Your task to perform on an android device: What's the news in Laos? Image 0: 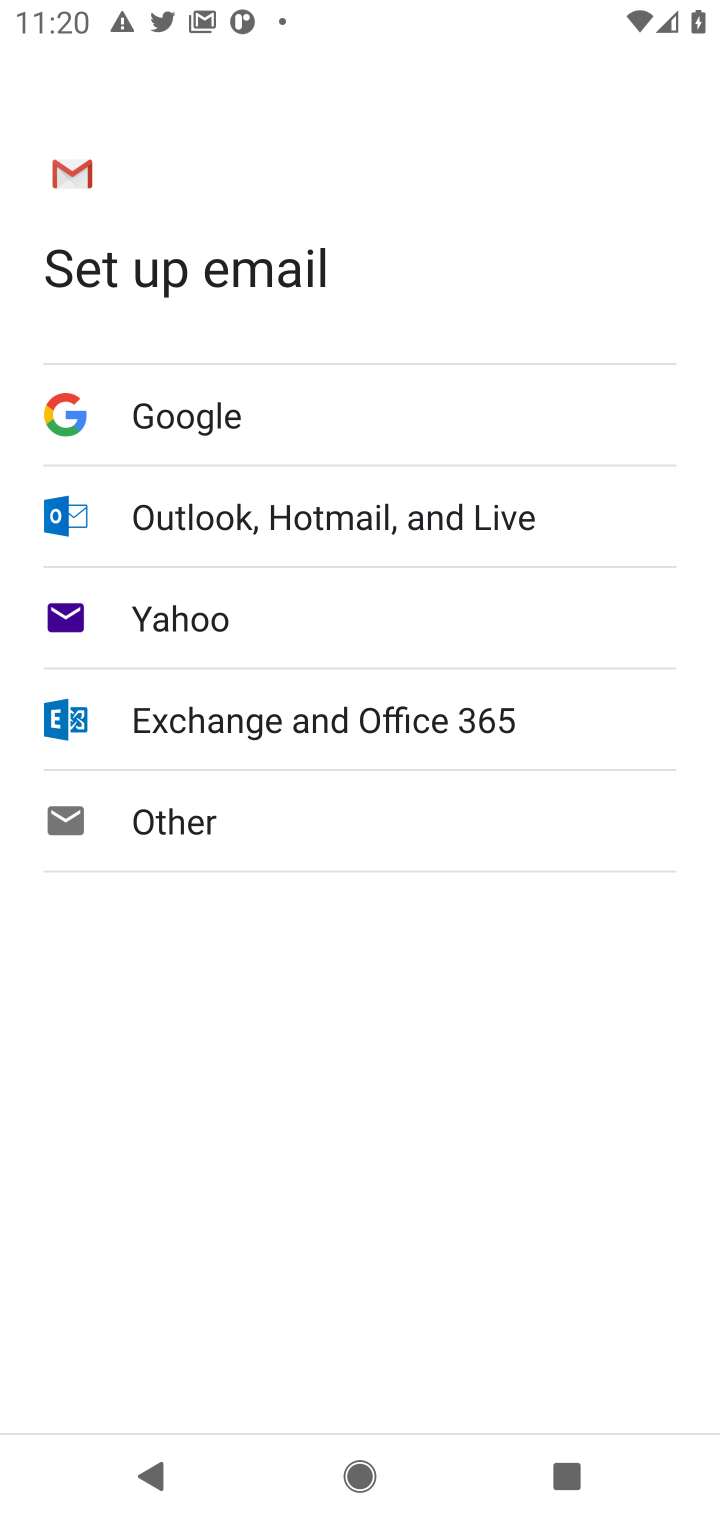
Step 0: press home button
Your task to perform on an android device: What's the news in Laos? Image 1: 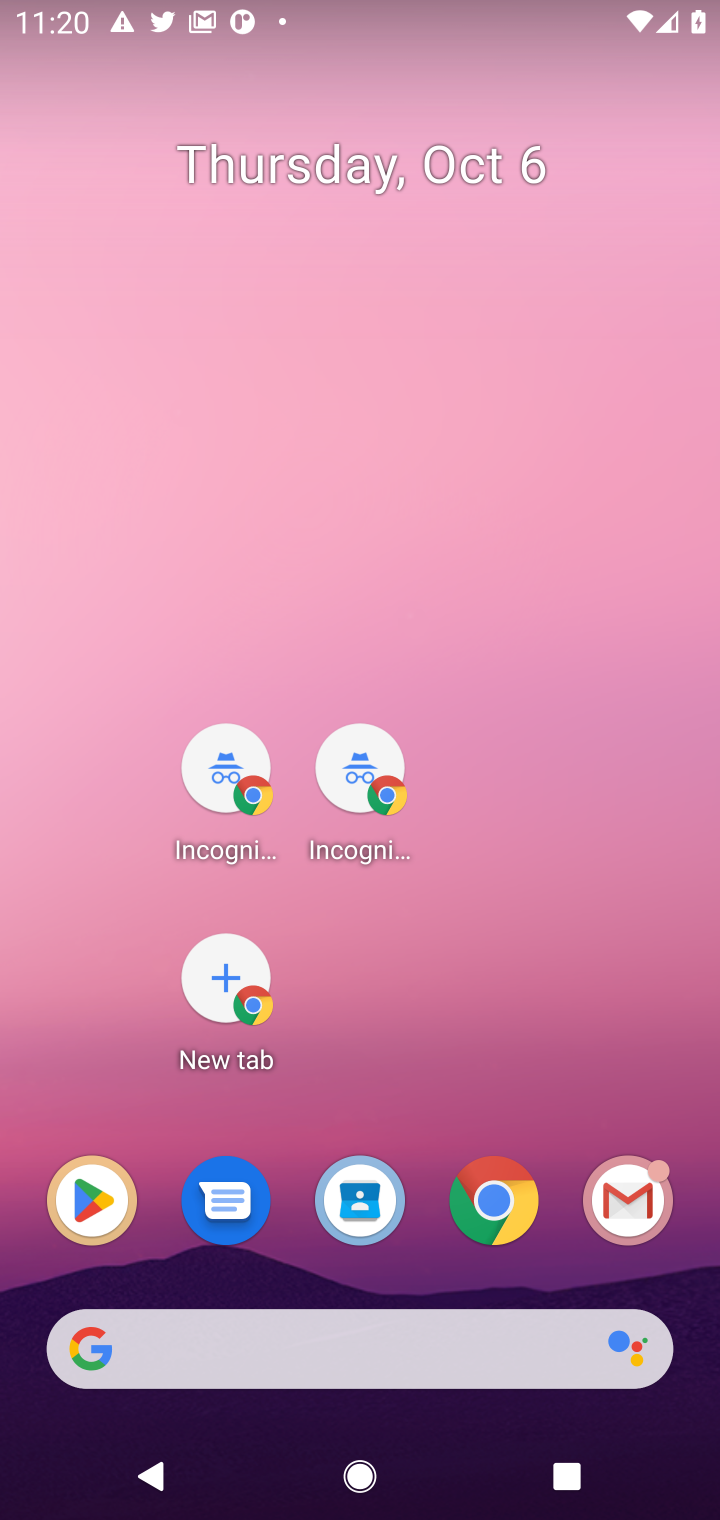
Step 1: press back button
Your task to perform on an android device: What's the news in Laos? Image 2: 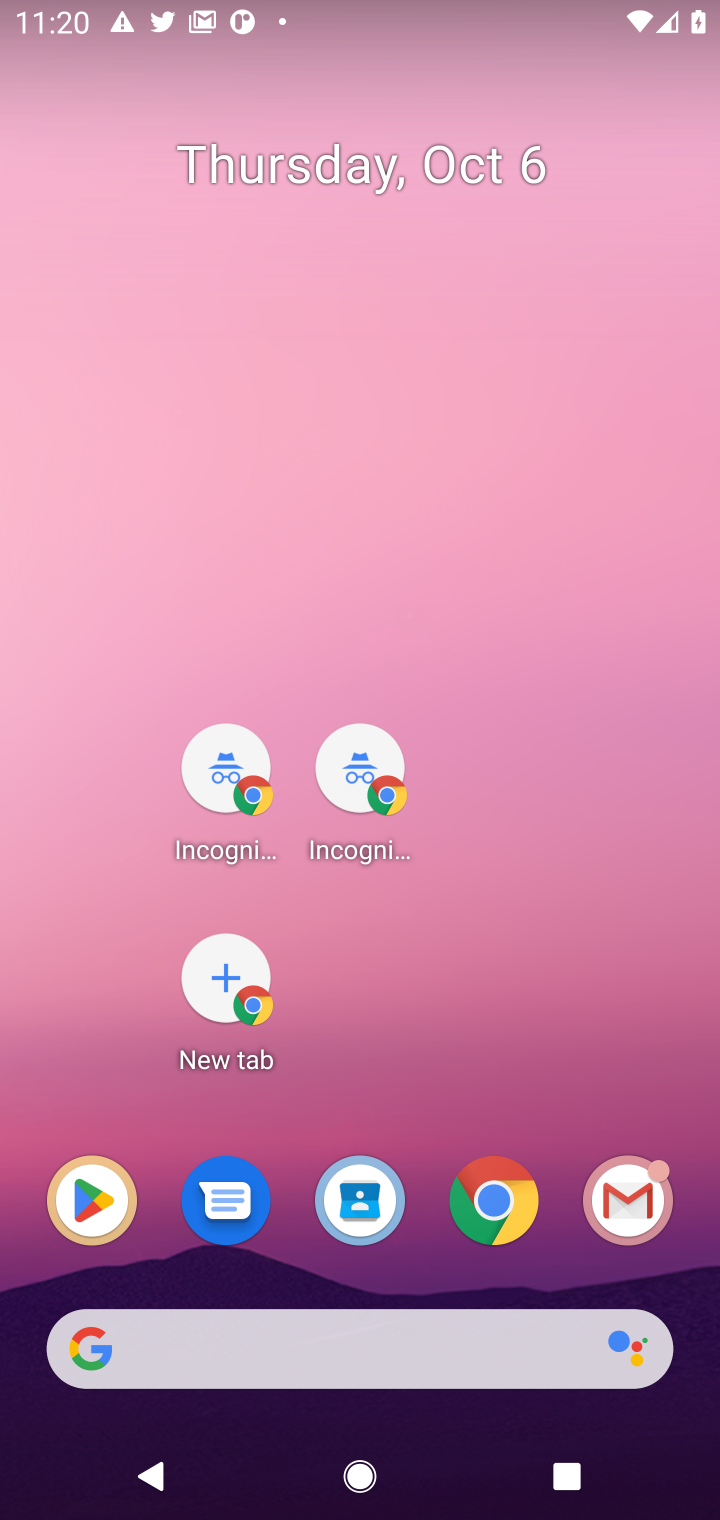
Step 2: click (495, 1214)
Your task to perform on an android device: What's the news in Laos? Image 3: 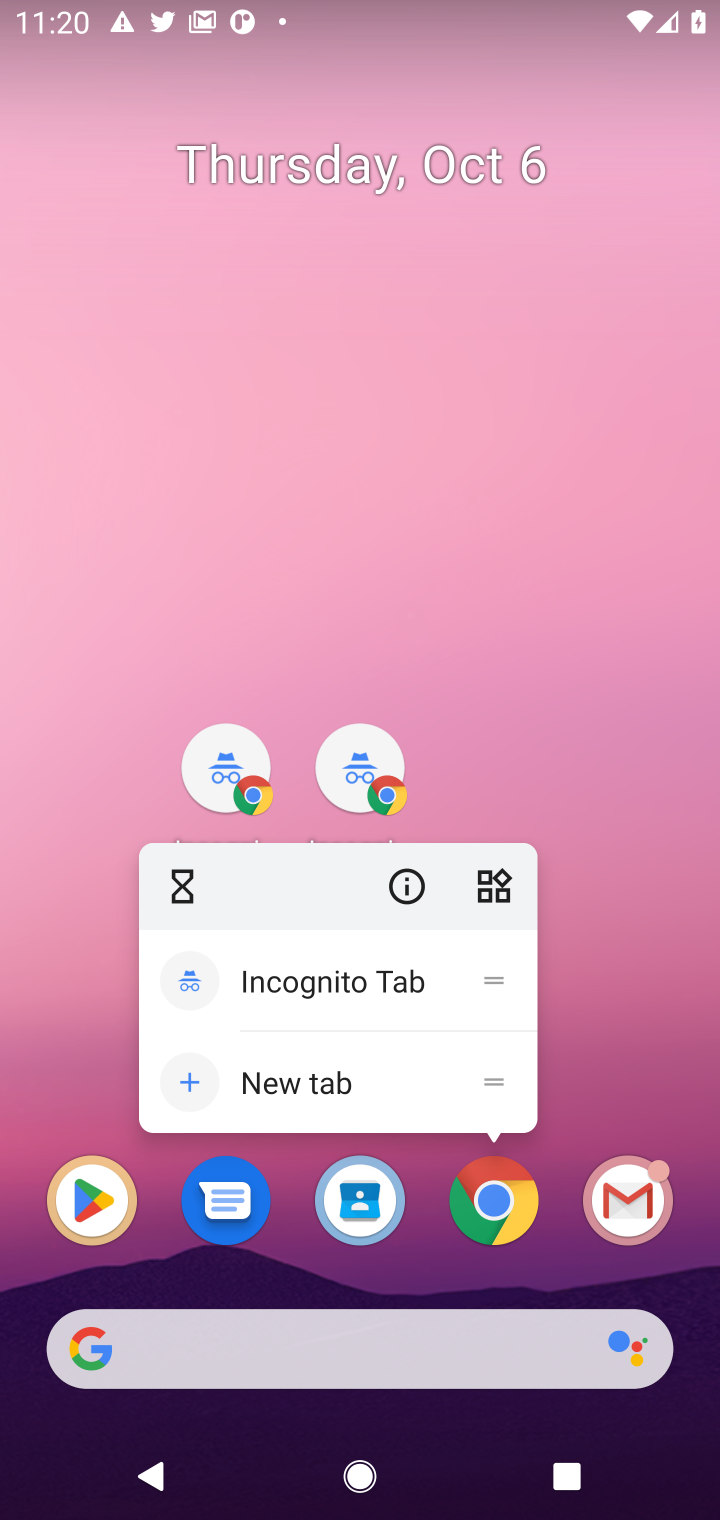
Step 3: click (492, 1212)
Your task to perform on an android device: What's the news in Laos? Image 4: 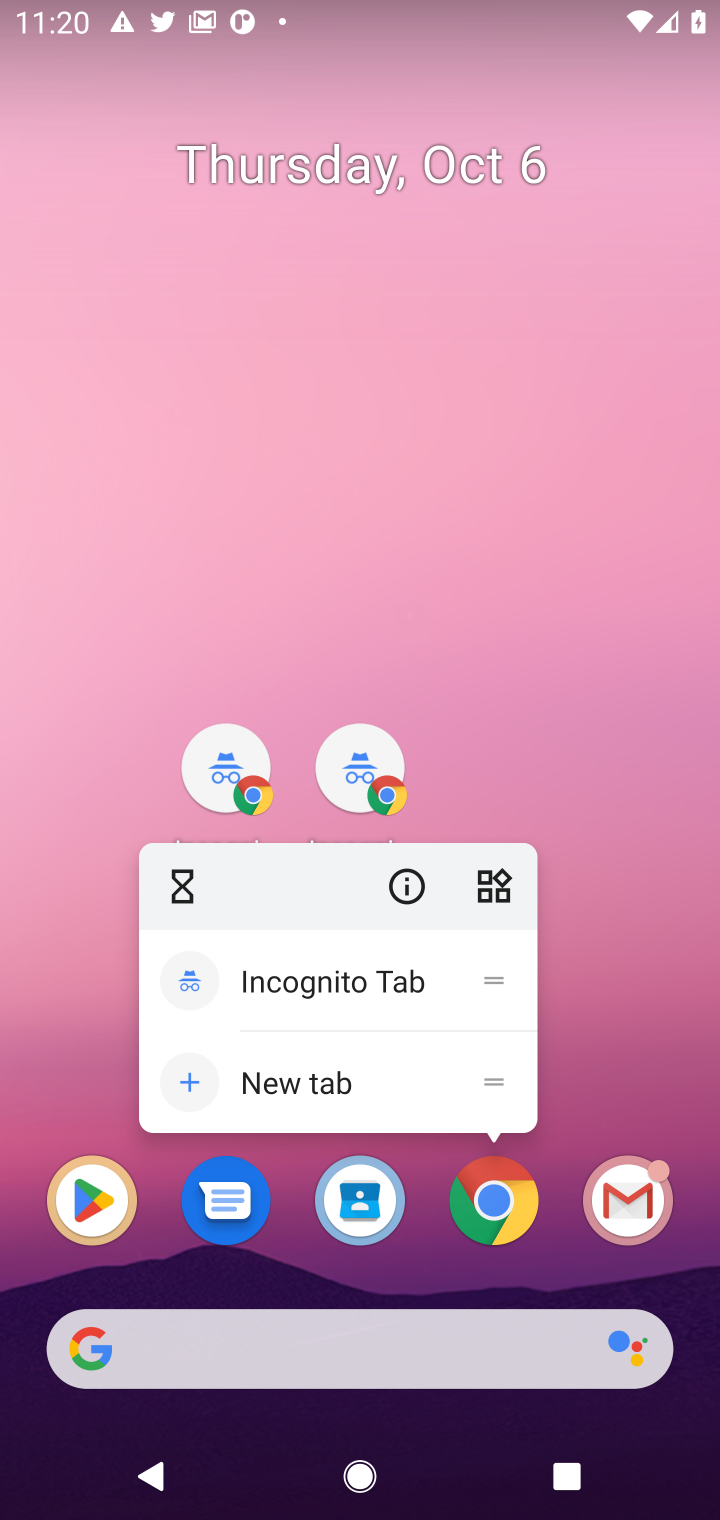
Step 4: press back button
Your task to perform on an android device: What's the news in Laos? Image 5: 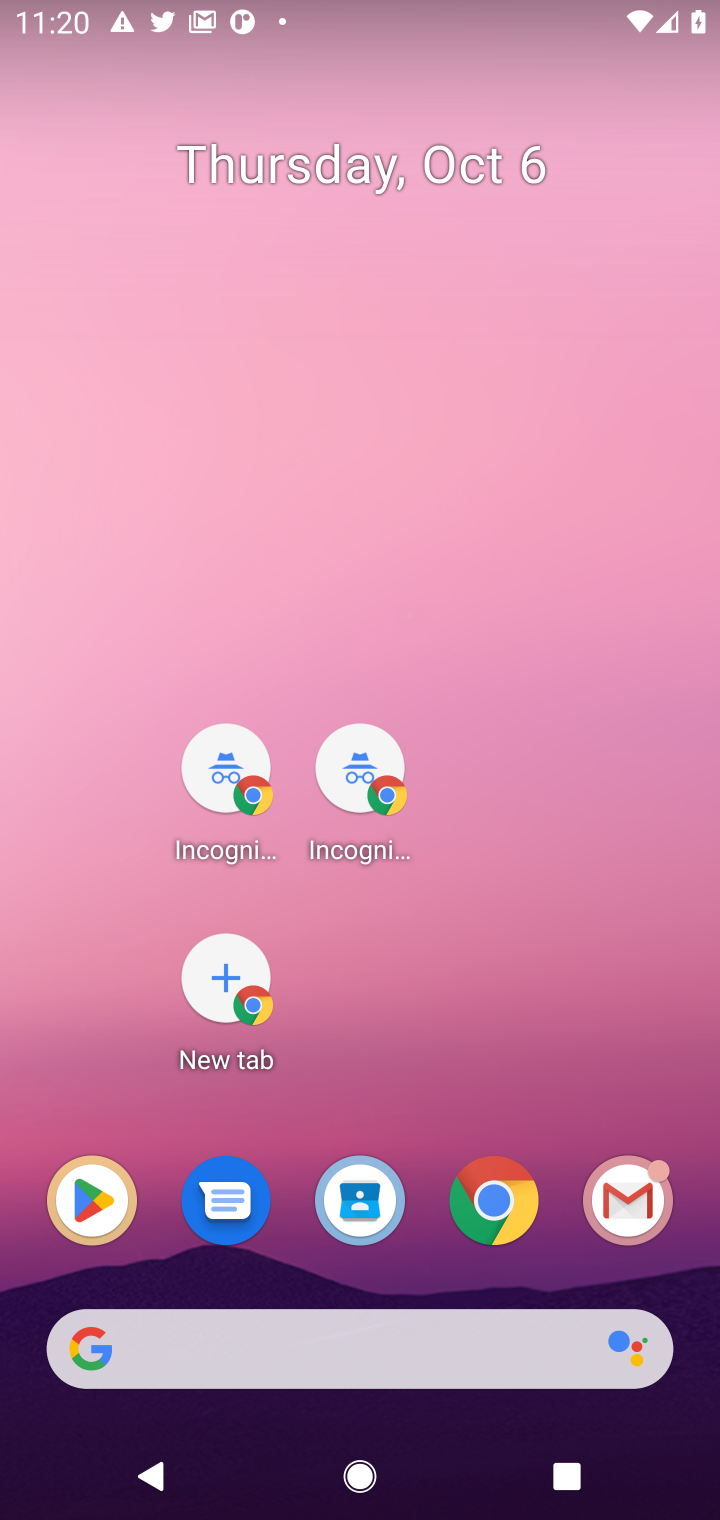
Step 5: press back button
Your task to perform on an android device: What's the news in Laos? Image 6: 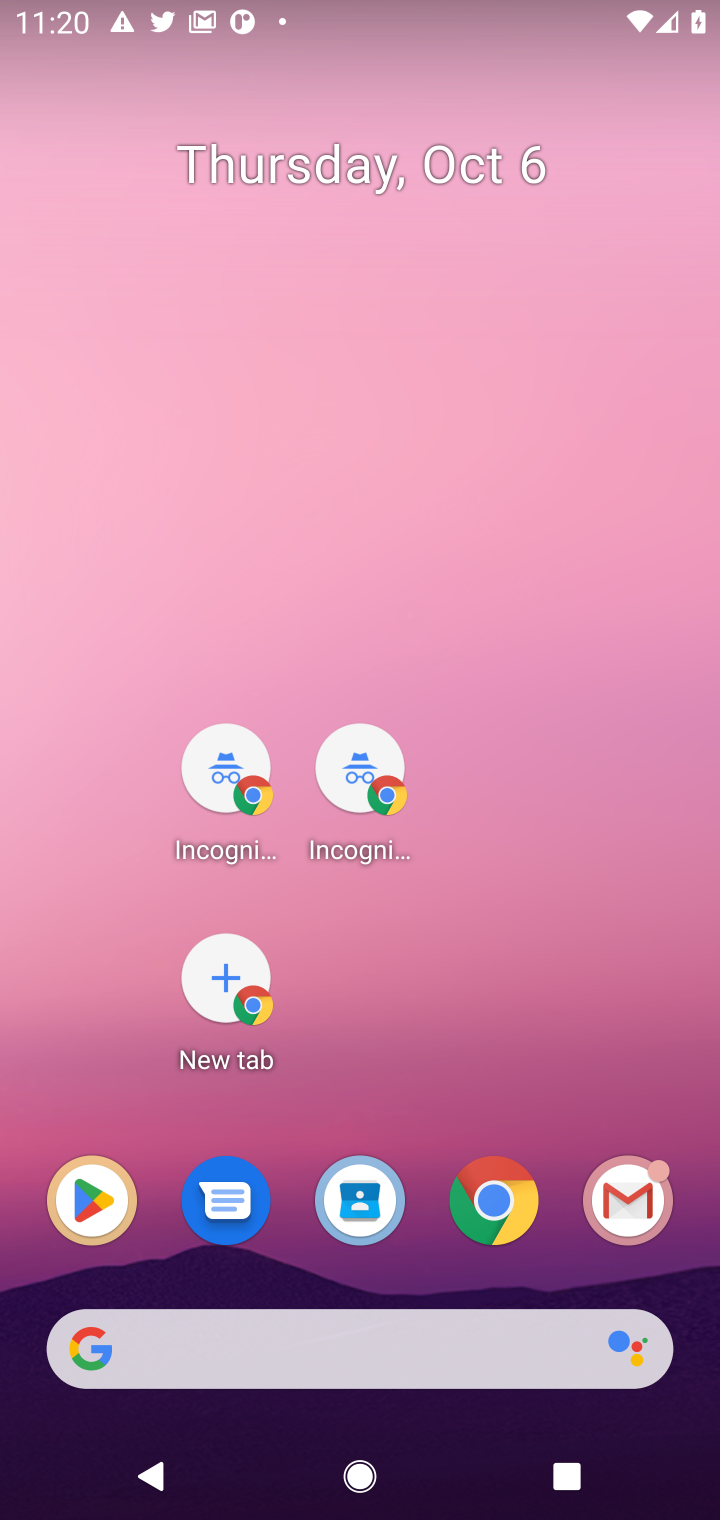
Step 6: press back button
Your task to perform on an android device: What's the news in Laos? Image 7: 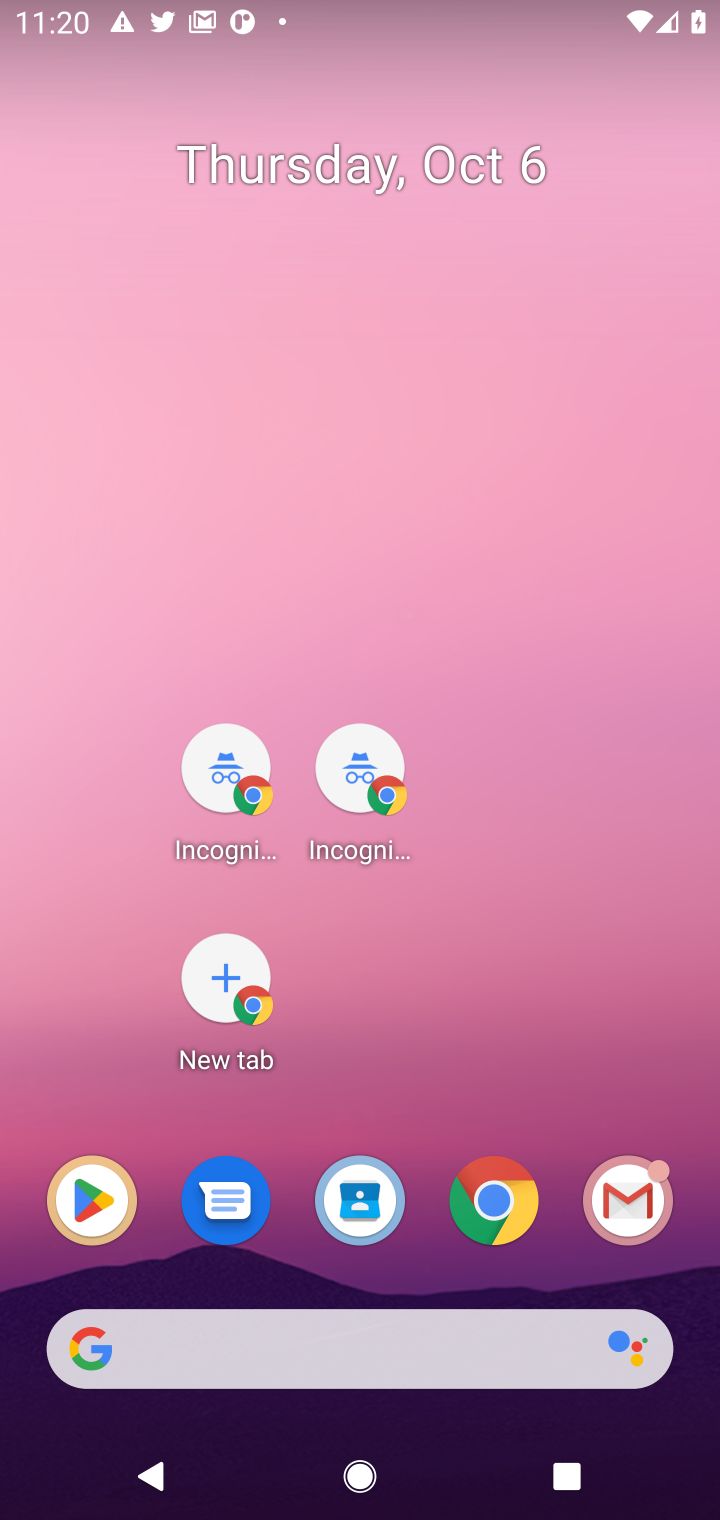
Step 7: click (518, 1204)
Your task to perform on an android device: What's the news in Laos? Image 8: 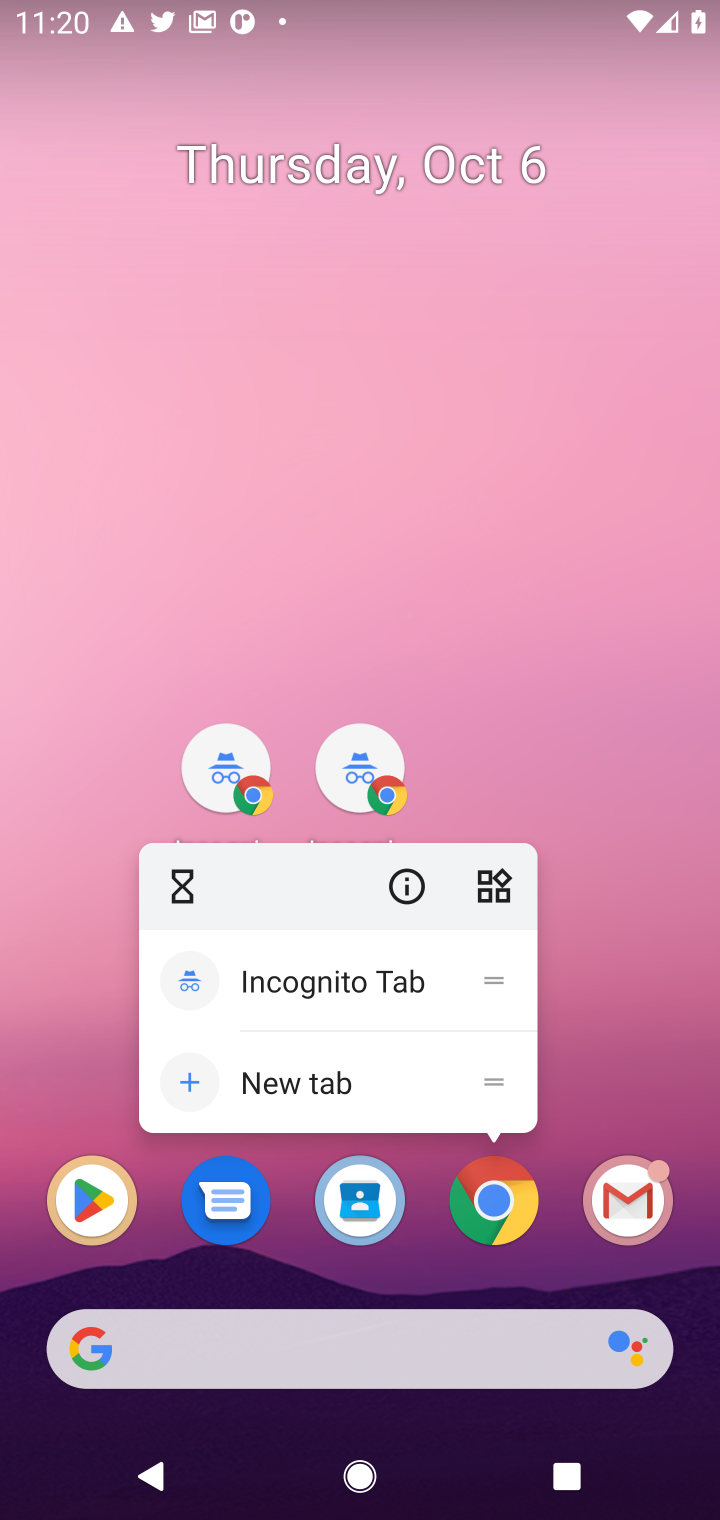
Step 8: click (496, 1218)
Your task to perform on an android device: What's the news in Laos? Image 9: 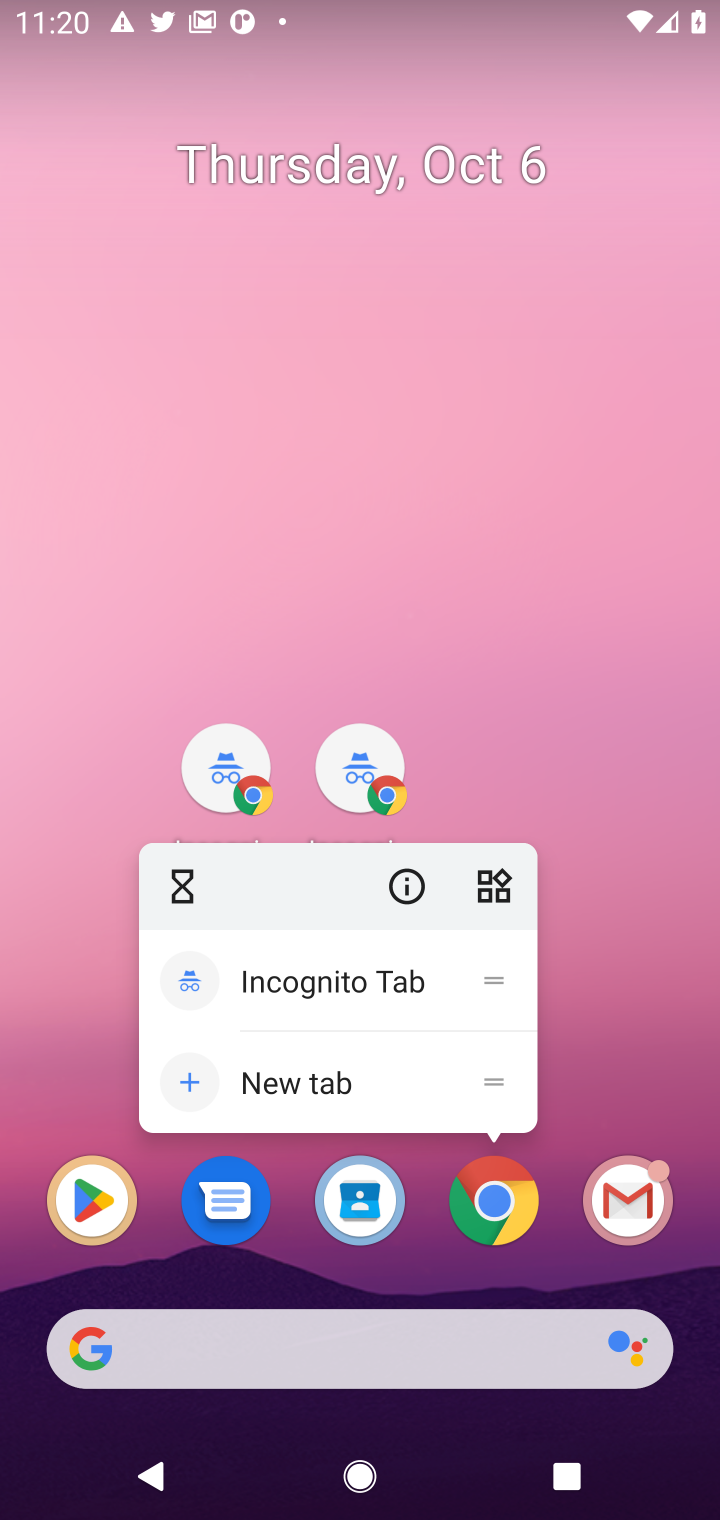
Step 9: click (501, 1225)
Your task to perform on an android device: What's the news in Laos? Image 10: 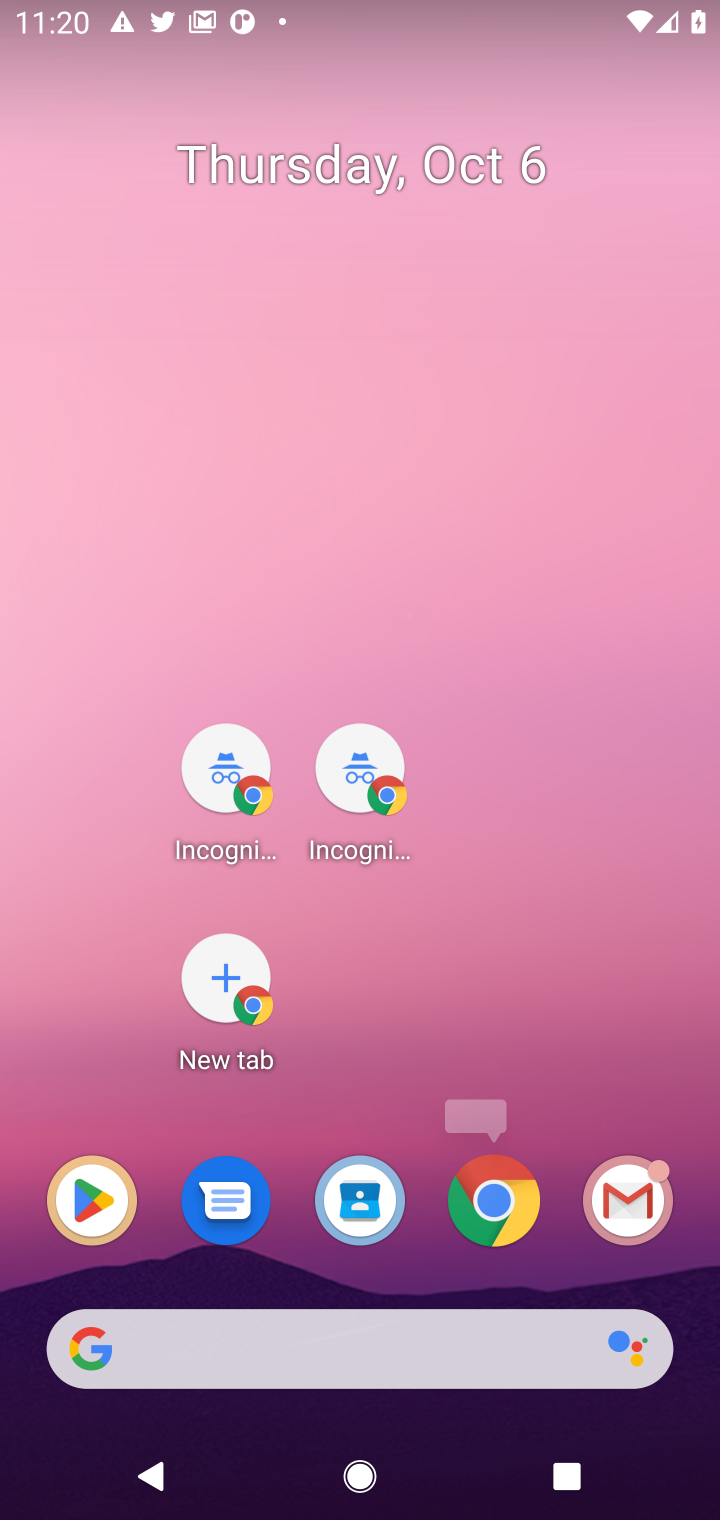
Step 10: click (496, 1204)
Your task to perform on an android device: What's the news in Laos? Image 11: 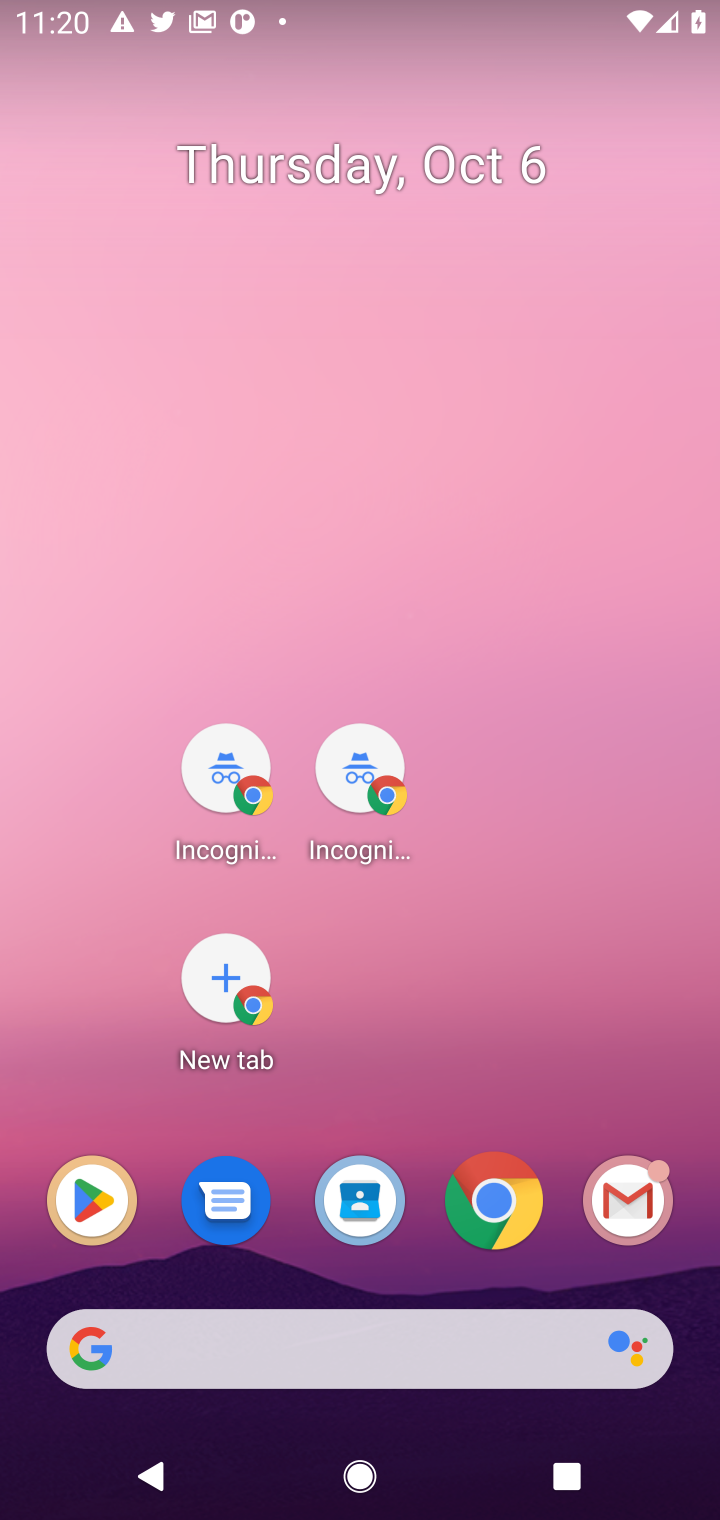
Step 11: click (499, 1202)
Your task to perform on an android device: What's the news in Laos? Image 12: 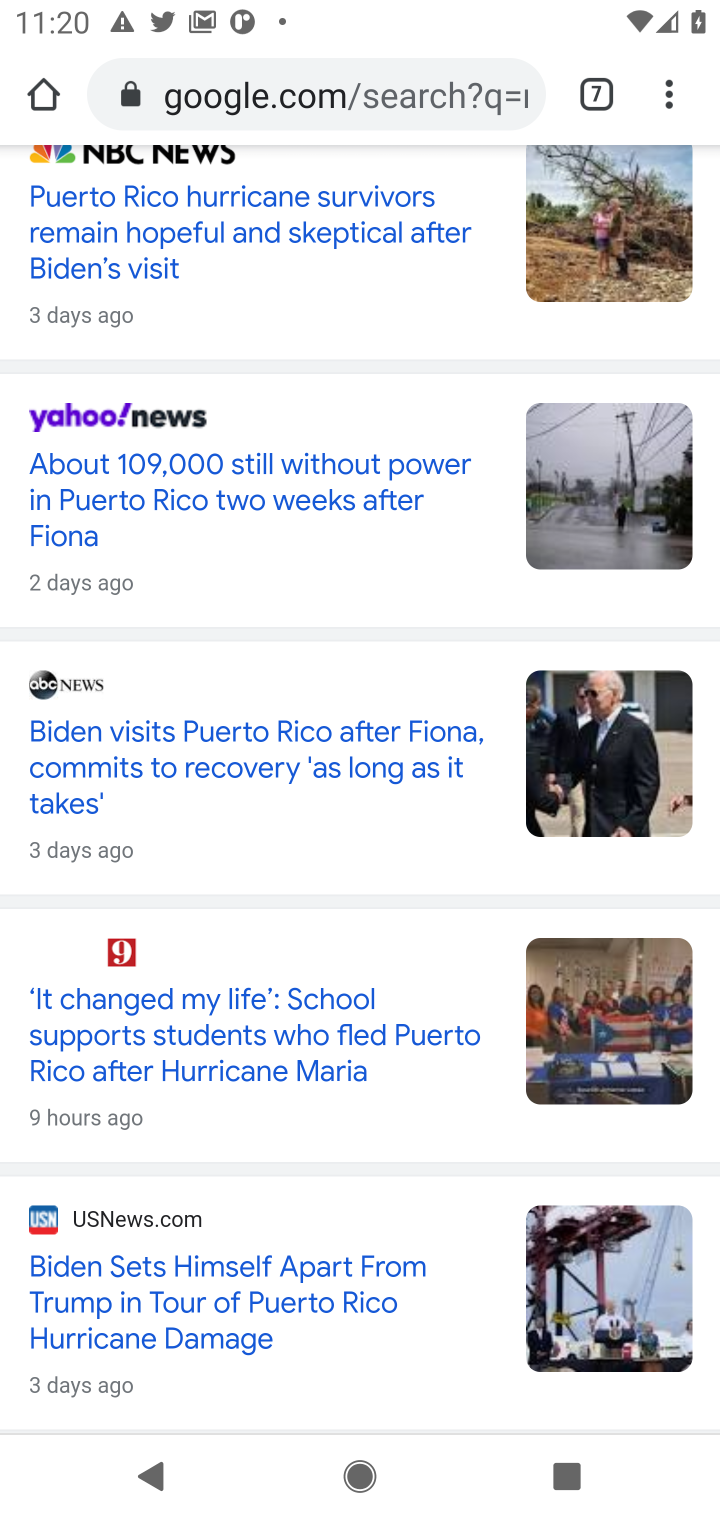
Step 12: click (268, 95)
Your task to perform on an android device: What's the news in Laos? Image 13: 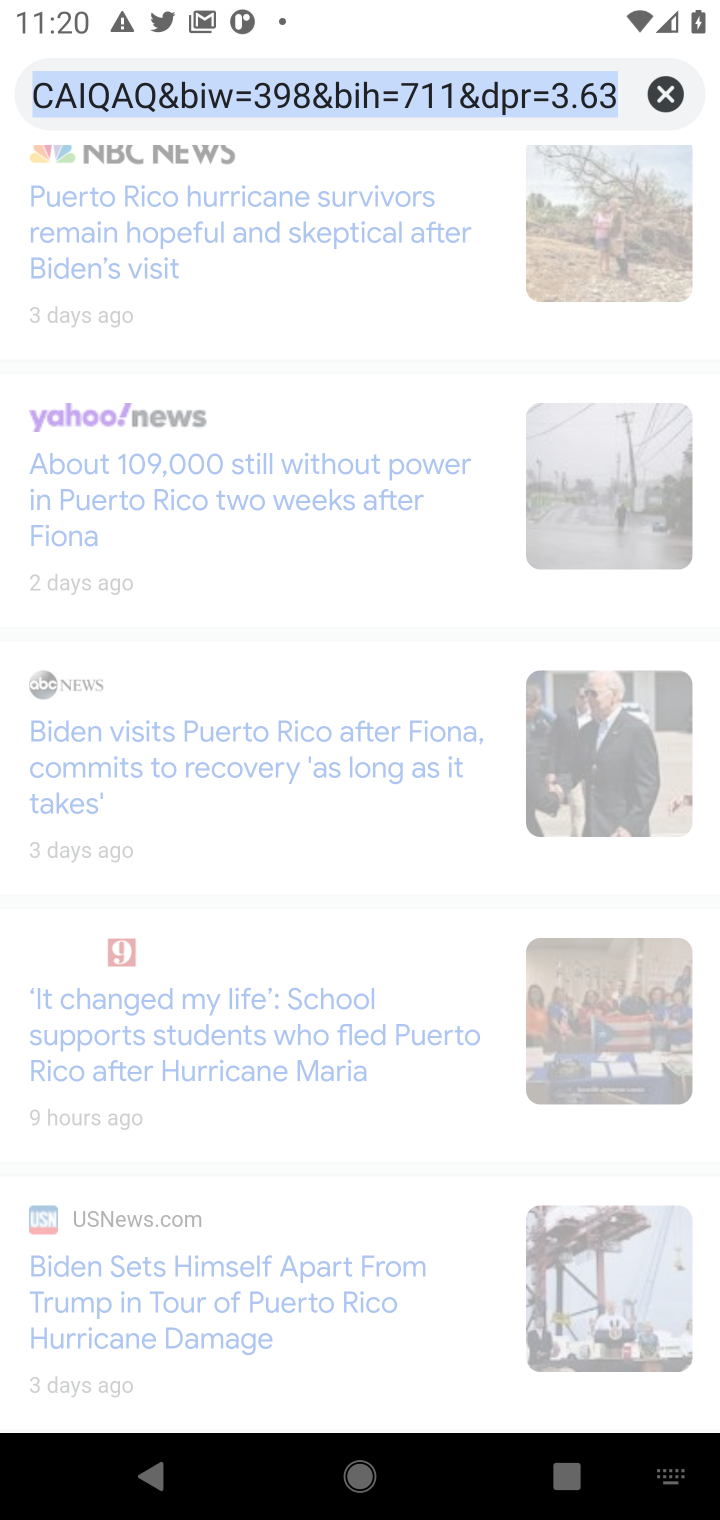
Step 13: click (660, 99)
Your task to perform on an android device: What's the news in Laos? Image 14: 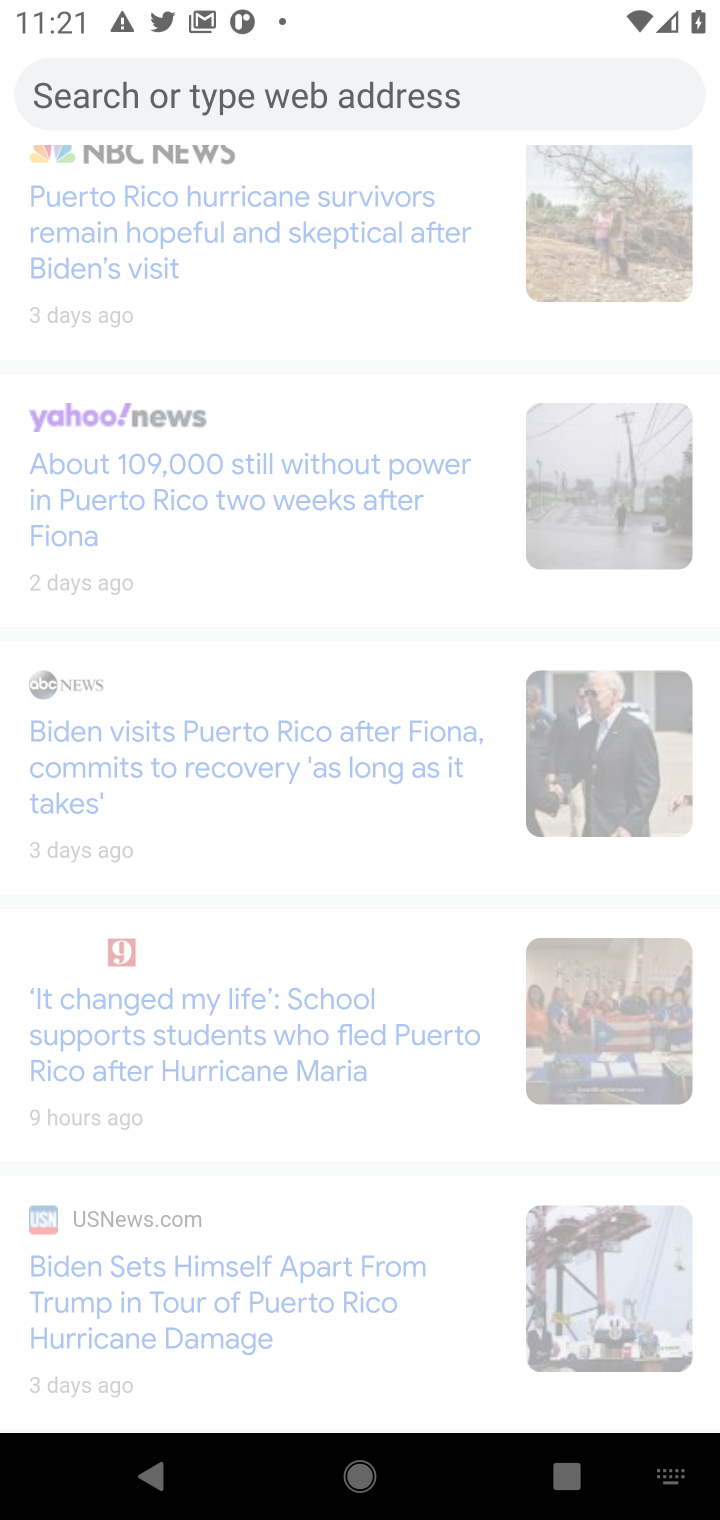
Step 14: type "whats the news in lacos"
Your task to perform on an android device: What's the news in Laos? Image 15: 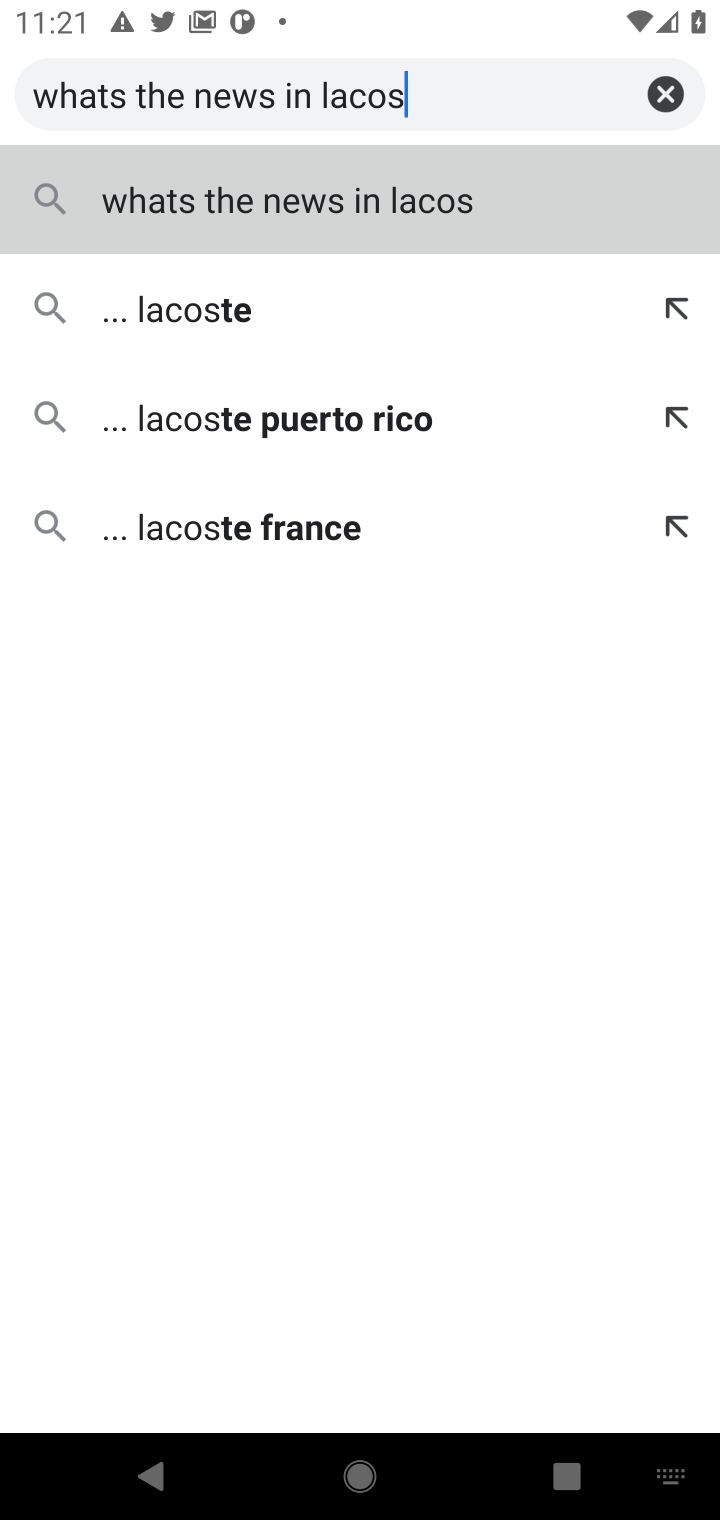
Step 15: click (309, 89)
Your task to perform on an android device: What's the news in Laos? Image 16: 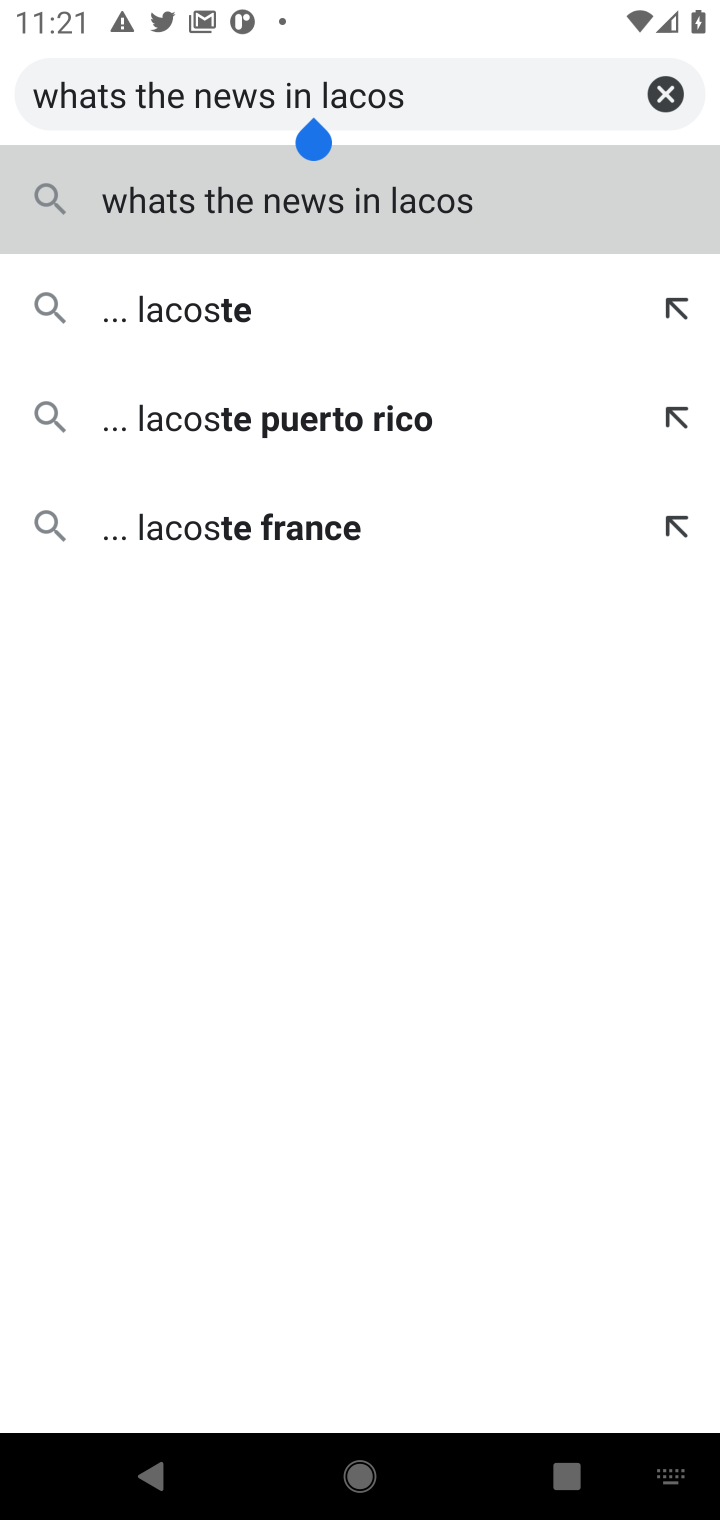
Step 16: click (402, 205)
Your task to perform on an android device: What's the news in Laos? Image 17: 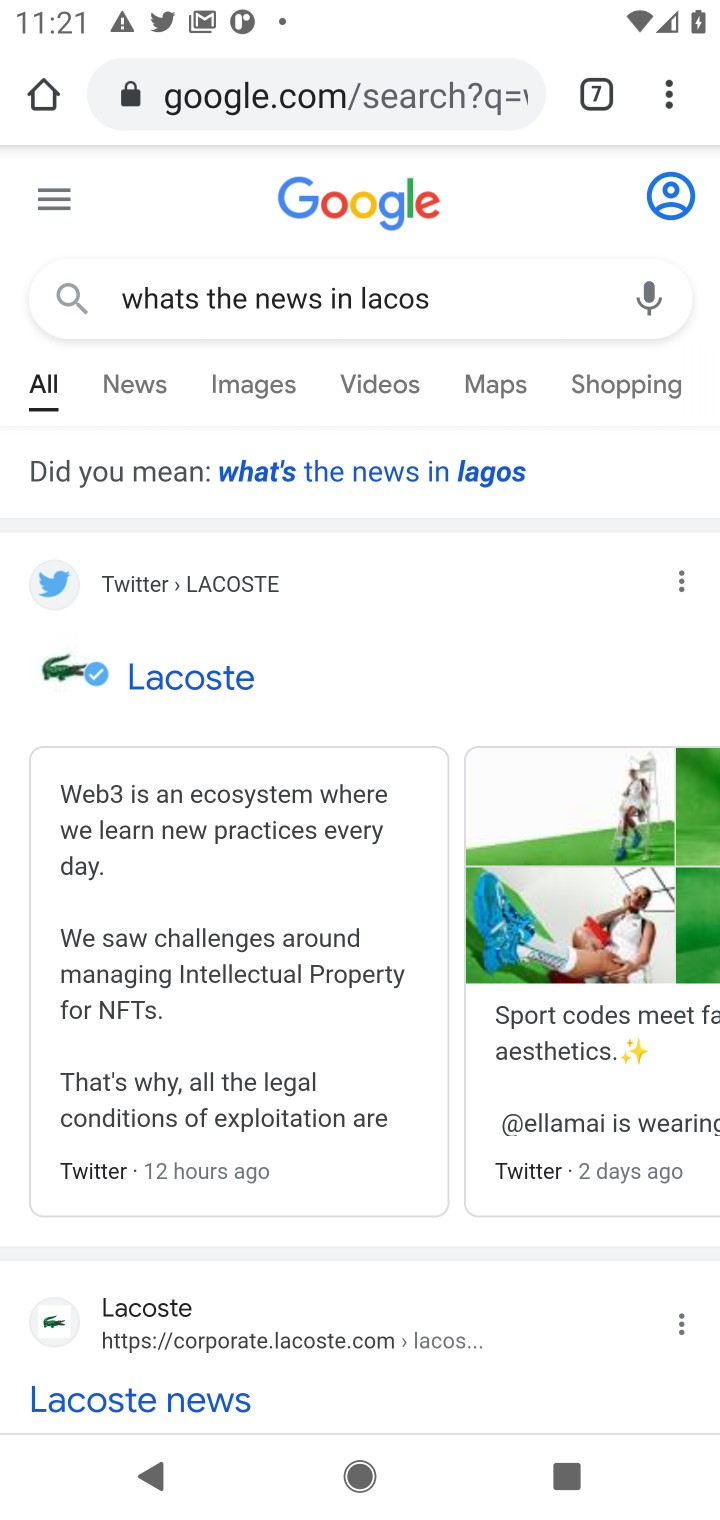
Step 17: click (93, 1401)
Your task to perform on an android device: What's the news in Laos? Image 18: 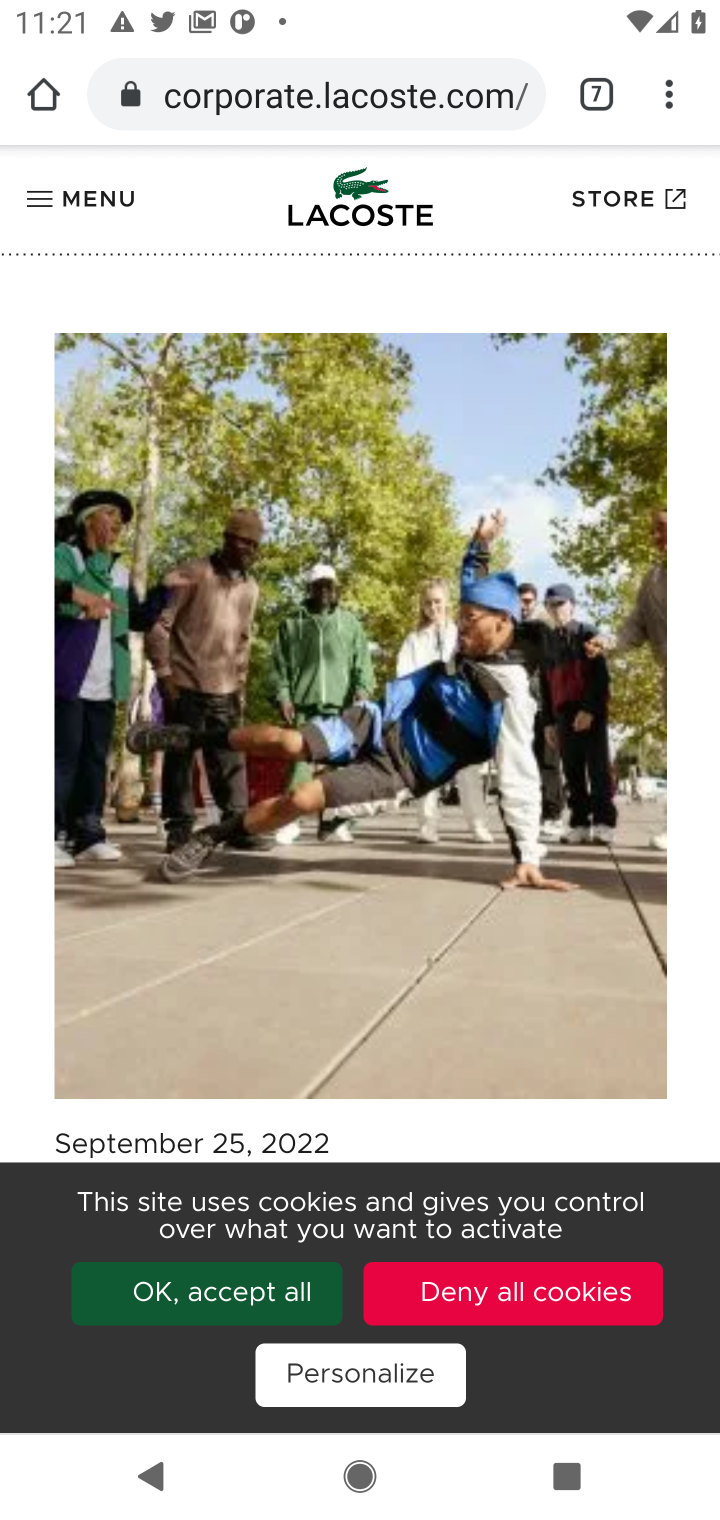
Step 18: task complete